Your task to perform on an android device: open a bookmark in the chrome app Image 0: 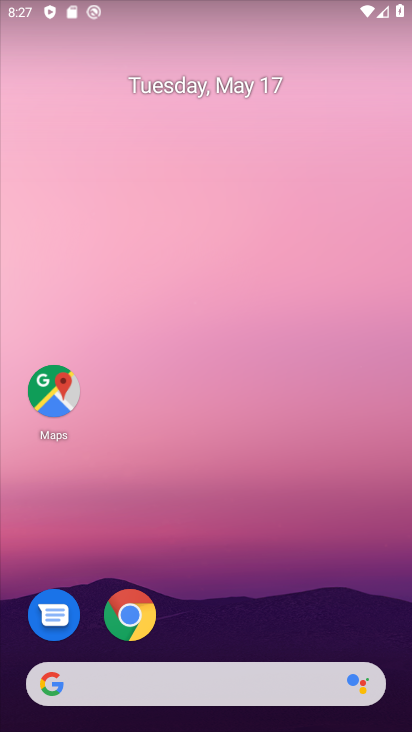
Step 0: click (135, 606)
Your task to perform on an android device: open a bookmark in the chrome app Image 1: 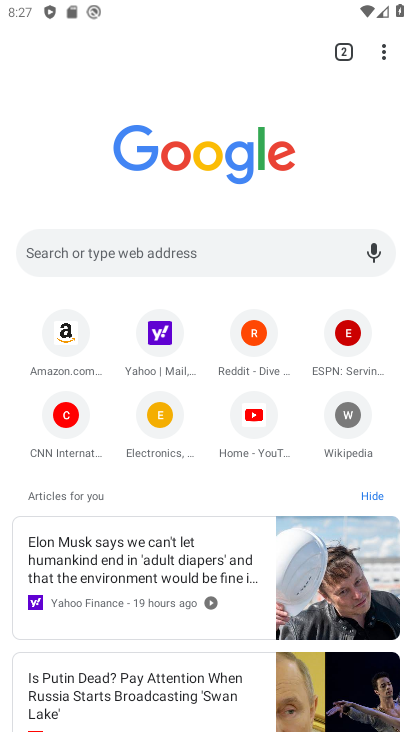
Step 1: task complete